Your task to perform on an android device: empty trash in the gmail app Image 0: 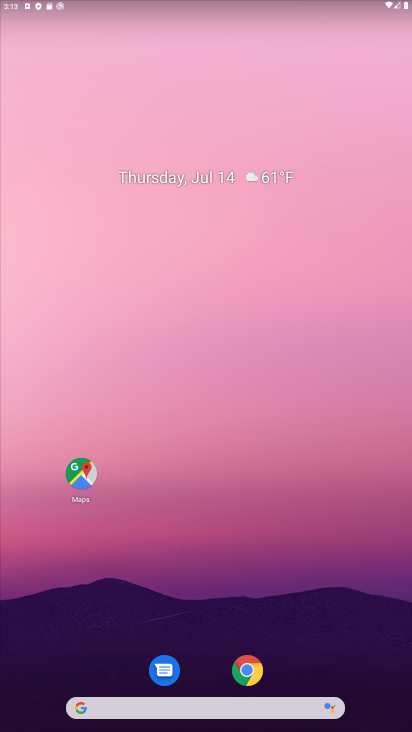
Step 0: drag from (183, 651) to (170, 110)
Your task to perform on an android device: empty trash in the gmail app Image 1: 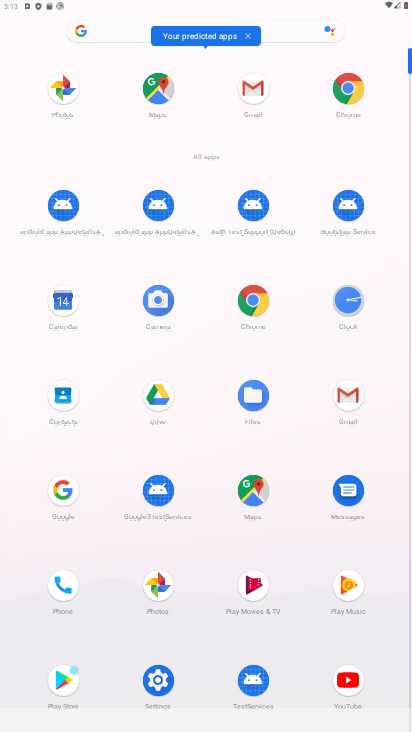
Step 1: click (247, 104)
Your task to perform on an android device: empty trash in the gmail app Image 2: 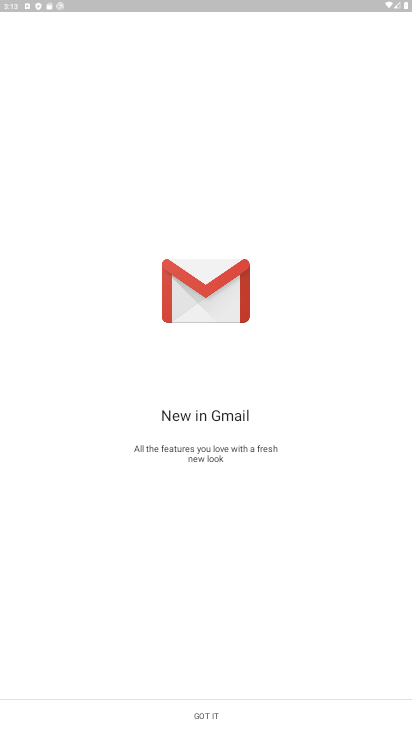
Step 2: click (212, 719)
Your task to perform on an android device: empty trash in the gmail app Image 3: 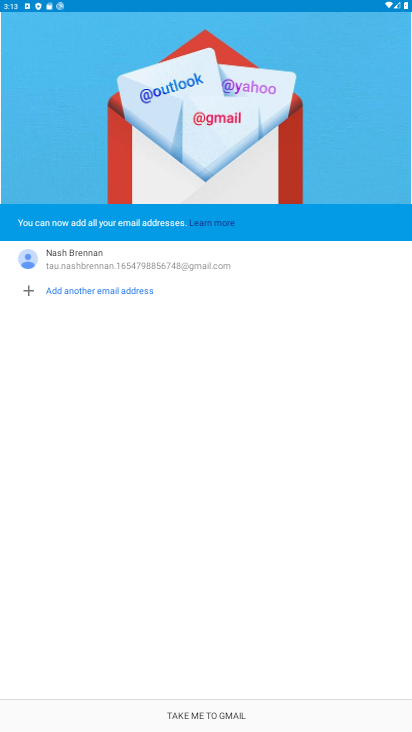
Step 3: click (123, 721)
Your task to perform on an android device: empty trash in the gmail app Image 4: 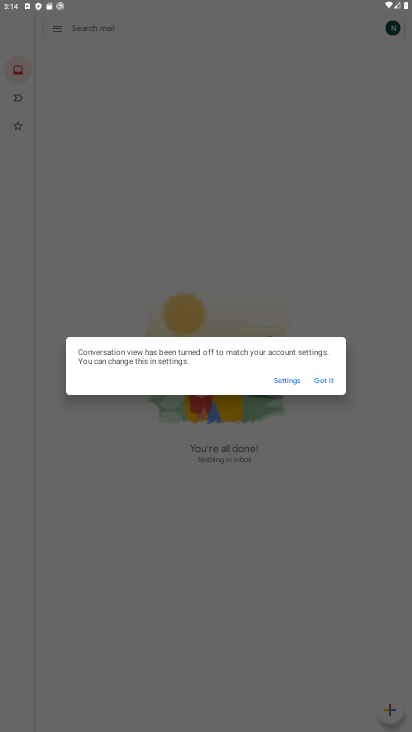
Step 4: click (319, 385)
Your task to perform on an android device: empty trash in the gmail app Image 5: 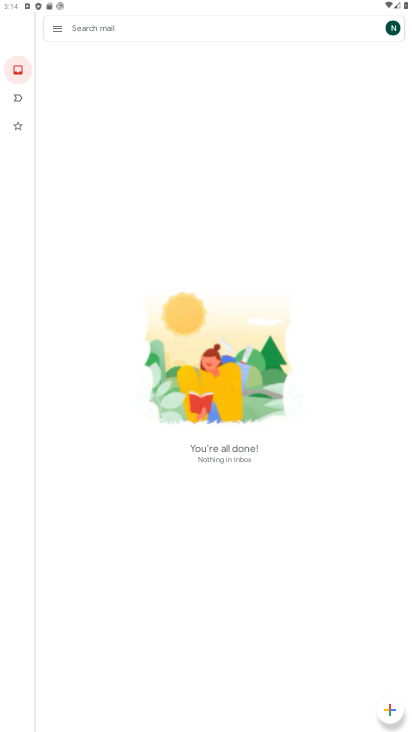
Step 5: click (57, 28)
Your task to perform on an android device: empty trash in the gmail app Image 6: 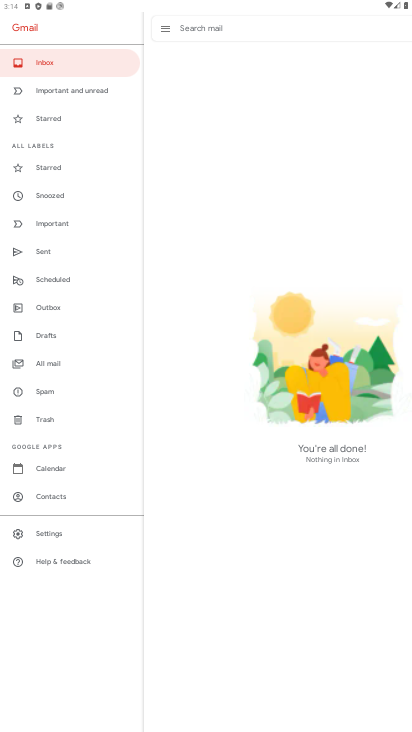
Step 6: click (43, 412)
Your task to perform on an android device: empty trash in the gmail app Image 7: 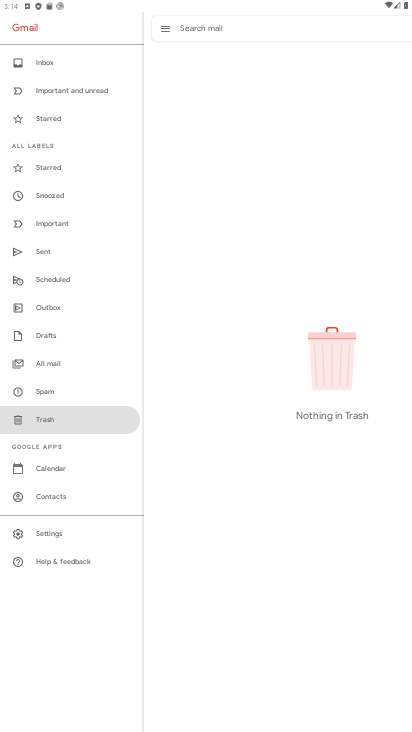
Step 7: task complete